Your task to perform on an android device: turn on translation in the chrome app Image 0: 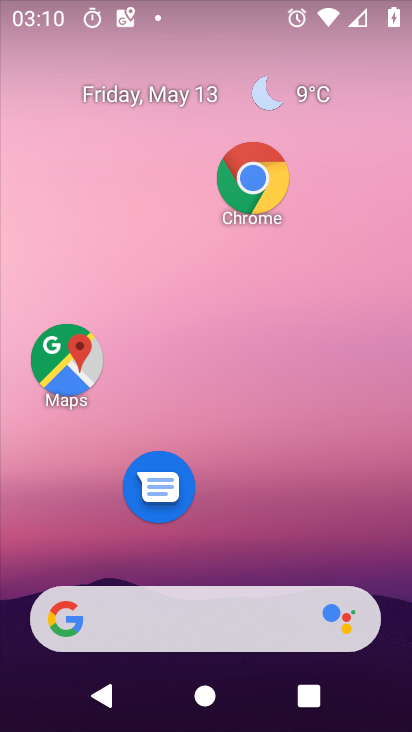
Step 0: click (260, 184)
Your task to perform on an android device: turn on translation in the chrome app Image 1: 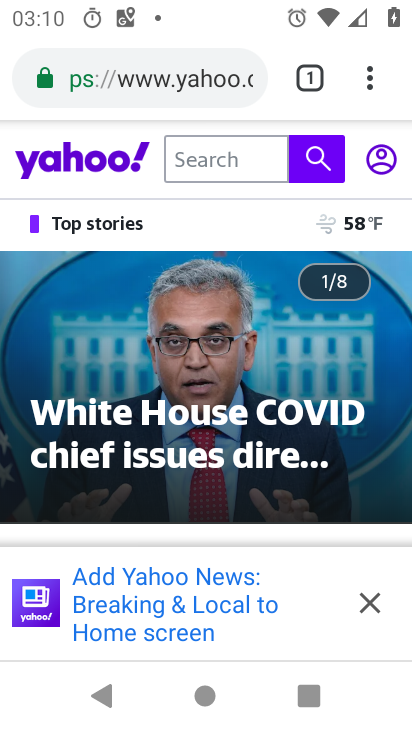
Step 1: click (363, 74)
Your task to perform on an android device: turn on translation in the chrome app Image 2: 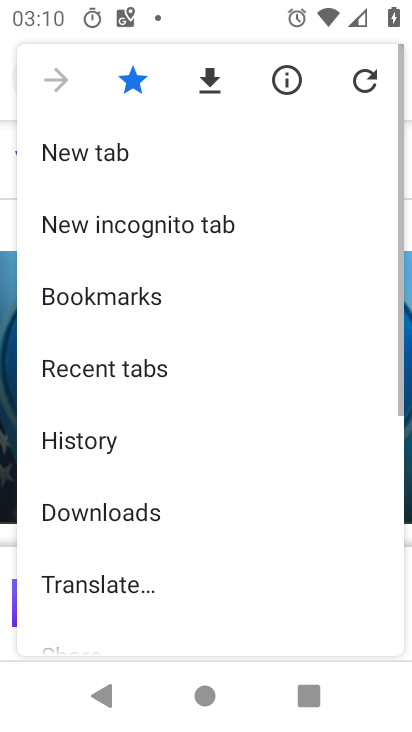
Step 2: drag from (179, 553) to (189, 187)
Your task to perform on an android device: turn on translation in the chrome app Image 3: 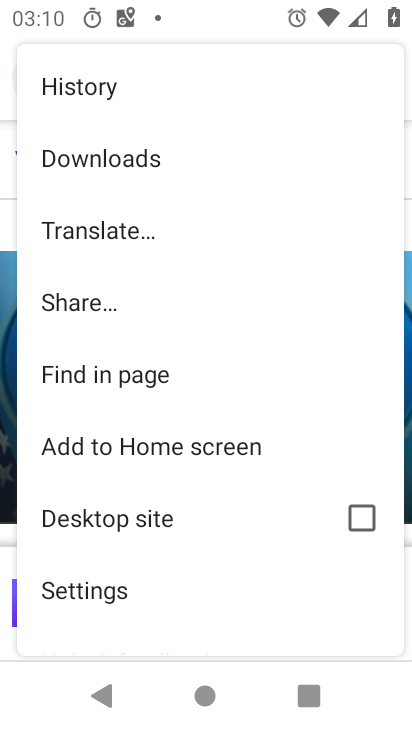
Step 3: click (142, 594)
Your task to perform on an android device: turn on translation in the chrome app Image 4: 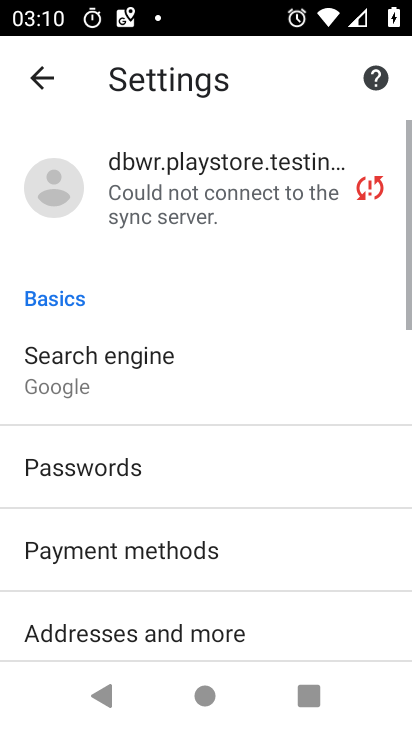
Step 4: drag from (241, 548) to (272, 129)
Your task to perform on an android device: turn on translation in the chrome app Image 5: 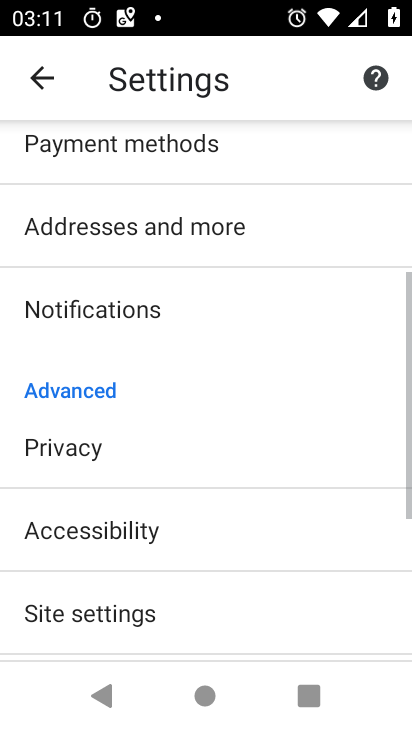
Step 5: drag from (234, 544) to (218, 324)
Your task to perform on an android device: turn on translation in the chrome app Image 6: 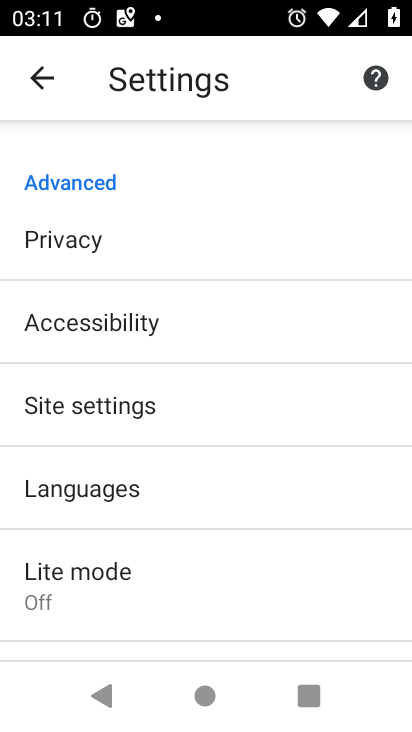
Step 6: click (135, 483)
Your task to perform on an android device: turn on translation in the chrome app Image 7: 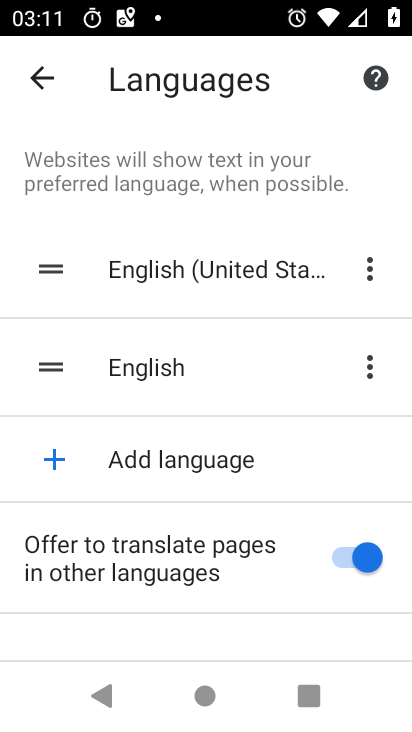
Step 7: task complete